Your task to perform on an android device: turn pop-ups on in chrome Image 0: 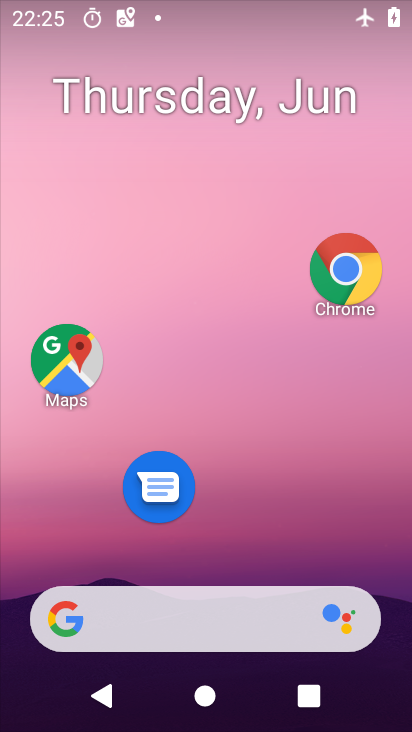
Step 0: drag from (248, 498) to (272, 229)
Your task to perform on an android device: turn pop-ups on in chrome Image 1: 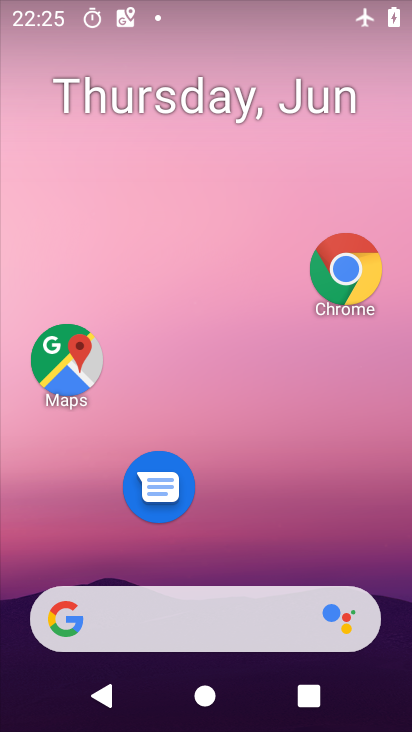
Step 1: click (346, 277)
Your task to perform on an android device: turn pop-ups on in chrome Image 2: 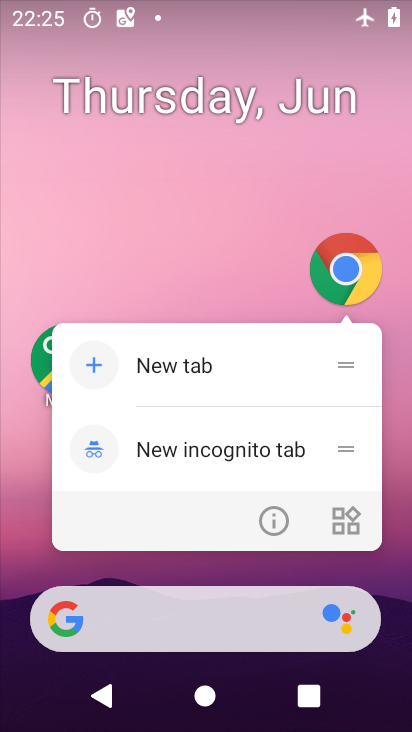
Step 2: click (265, 521)
Your task to perform on an android device: turn pop-ups on in chrome Image 3: 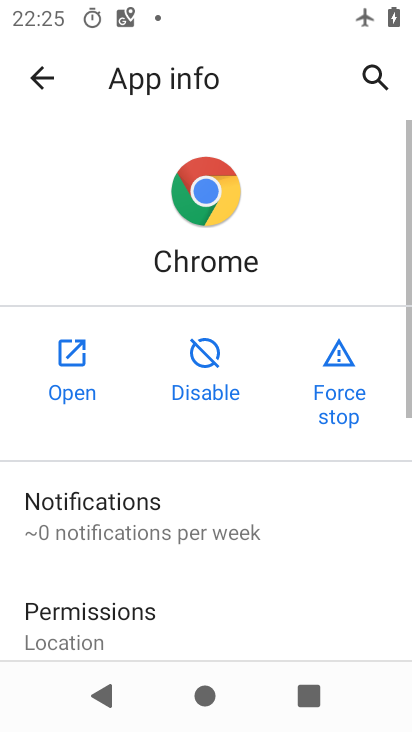
Step 3: click (36, 387)
Your task to perform on an android device: turn pop-ups on in chrome Image 4: 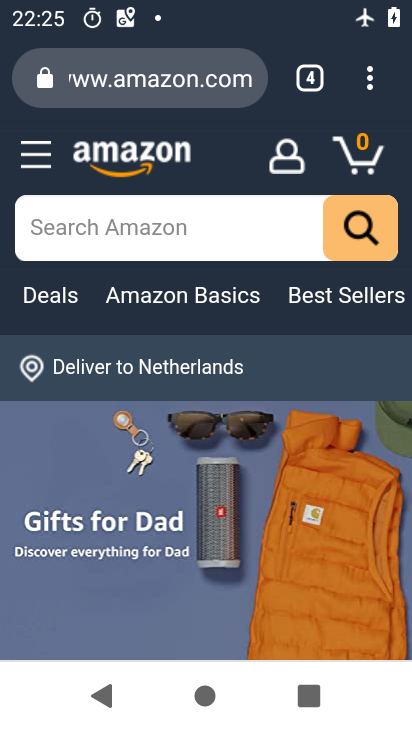
Step 4: drag from (374, 86) to (139, 571)
Your task to perform on an android device: turn pop-ups on in chrome Image 5: 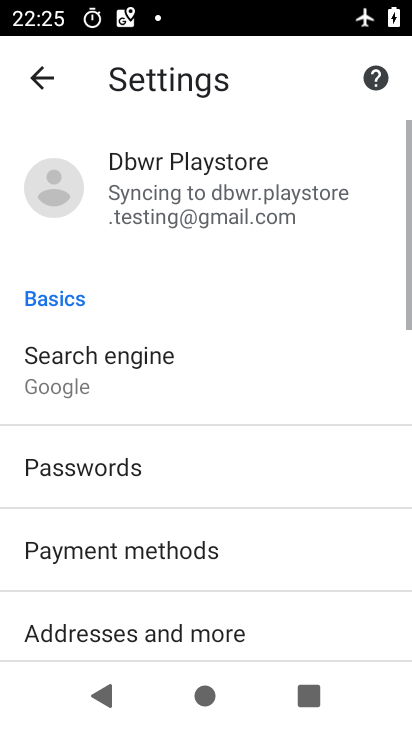
Step 5: drag from (183, 553) to (335, 105)
Your task to perform on an android device: turn pop-ups on in chrome Image 6: 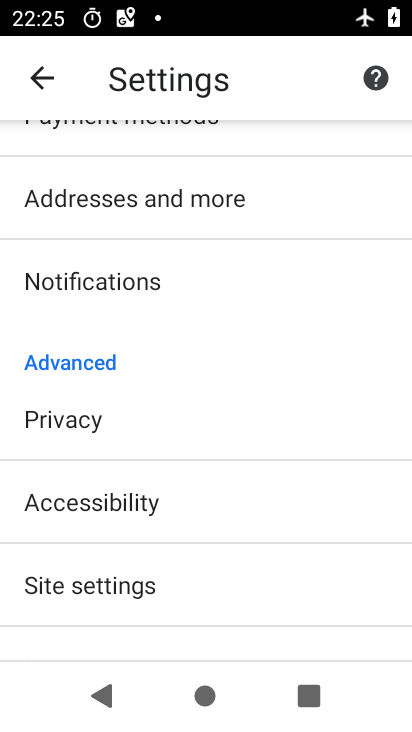
Step 6: drag from (126, 553) to (273, 195)
Your task to perform on an android device: turn pop-ups on in chrome Image 7: 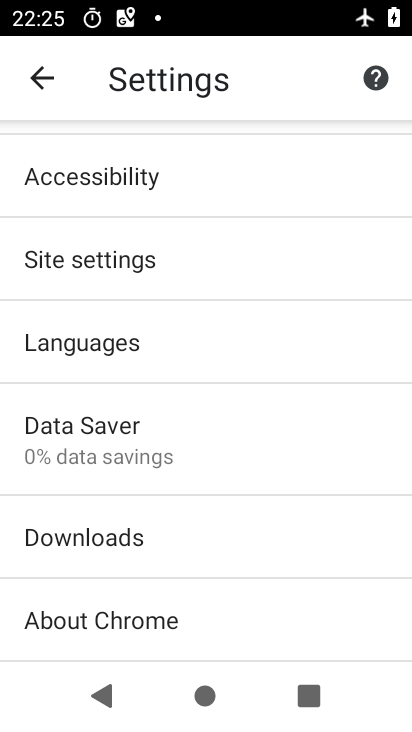
Step 7: click (124, 246)
Your task to perform on an android device: turn pop-ups on in chrome Image 8: 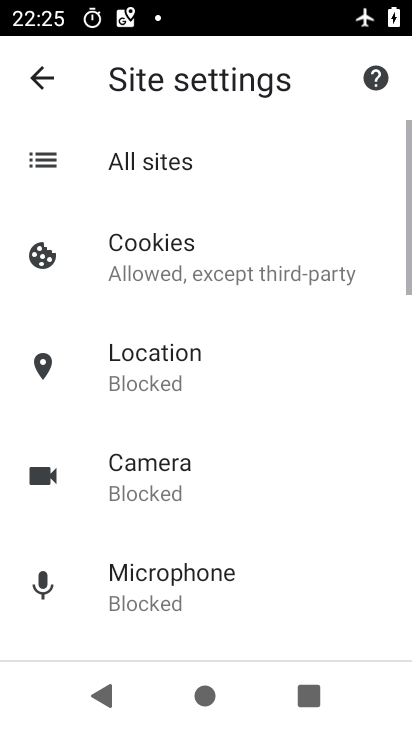
Step 8: drag from (196, 481) to (381, 18)
Your task to perform on an android device: turn pop-ups on in chrome Image 9: 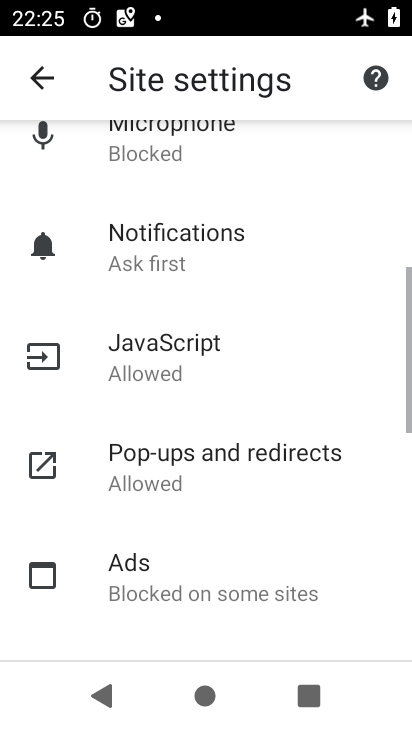
Step 9: click (177, 457)
Your task to perform on an android device: turn pop-ups on in chrome Image 10: 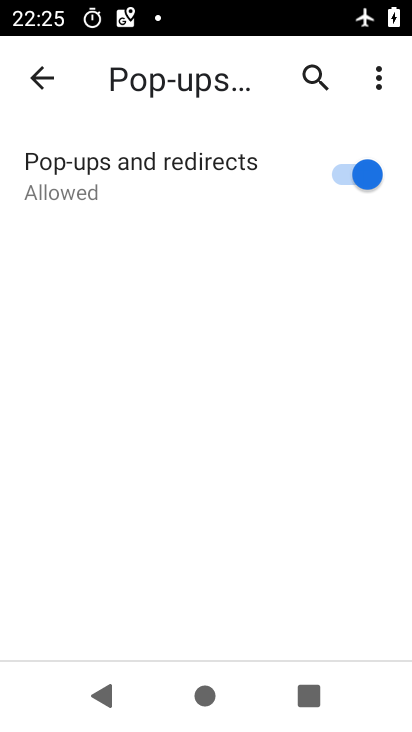
Step 10: task complete